Your task to perform on an android device: Clear all items from cart on walmart. Search for "razer huntsman" on walmart, select the first entry, and add it to the cart. Image 0: 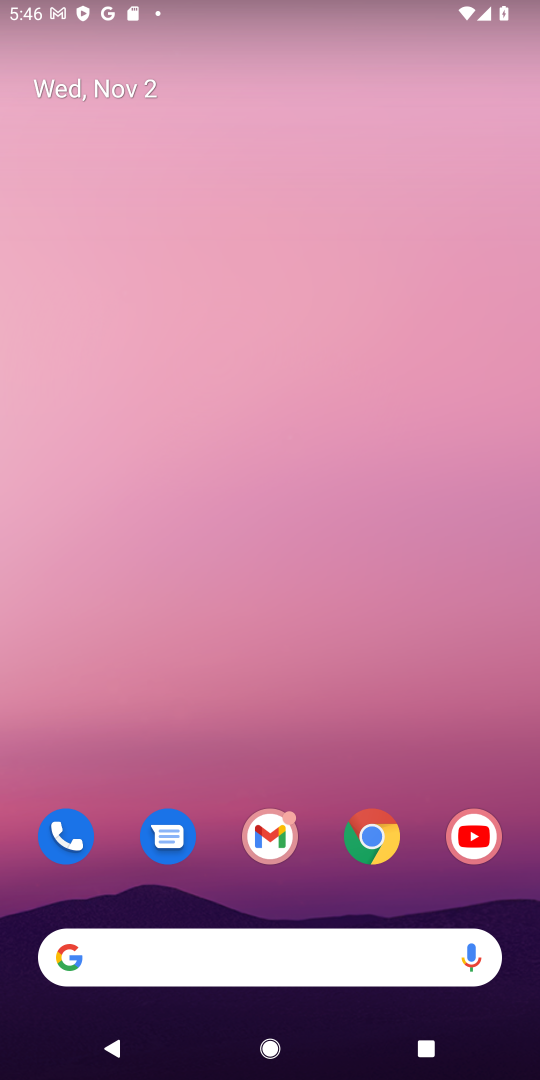
Step 0: drag from (200, 842) to (200, 308)
Your task to perform on an android device: Clear all items from cart on walmart. Search for "razer huntsman" on walmart, select the first entry, and add it to the cart. Image 1: 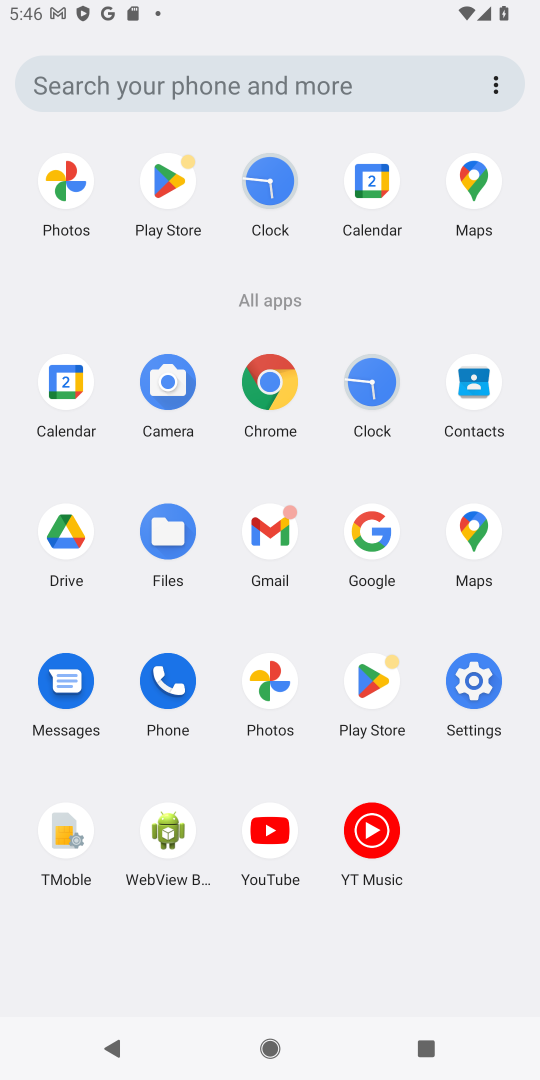
Step 1: click (364, 532)
Your task to perform on an android device: Clear all items from cart on walmart. Search for "razer huntsman" on walmart, select the first entry, and add it to the cart. Image 2: 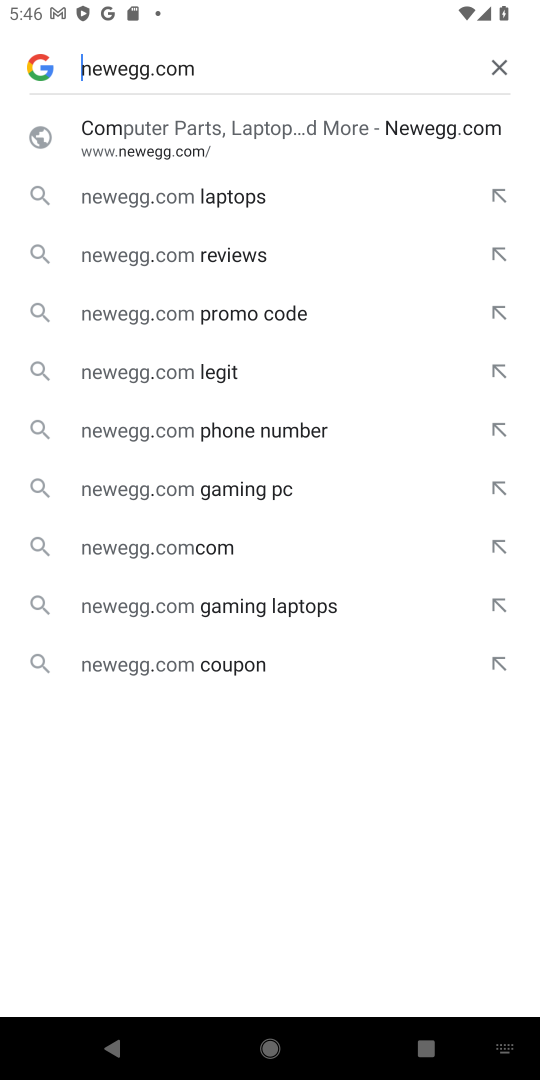
Step 2: click (172, 65)
Your task to perform on an android device: Clear all items from cart on walmart. Search for "razer huntsman" on walmart, select the first entry, and add it to the cart. Image 3: 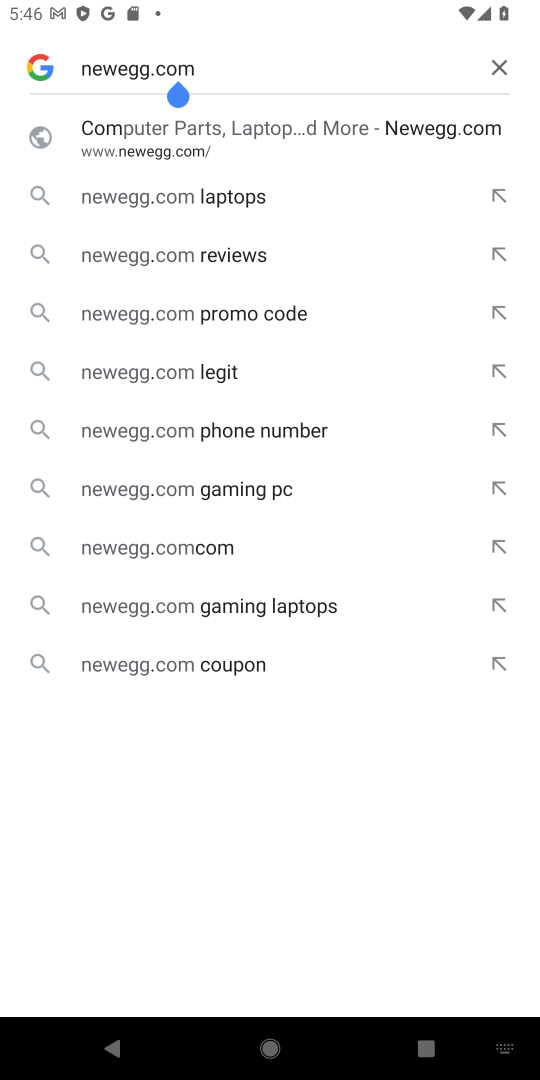
Step 3: click (496, 70)
Your task to perform on an android device: Clear all items from cart on walmart. Search for "razer huntsman" on walmart, select the first entry, and add it to the cart. Image 4: 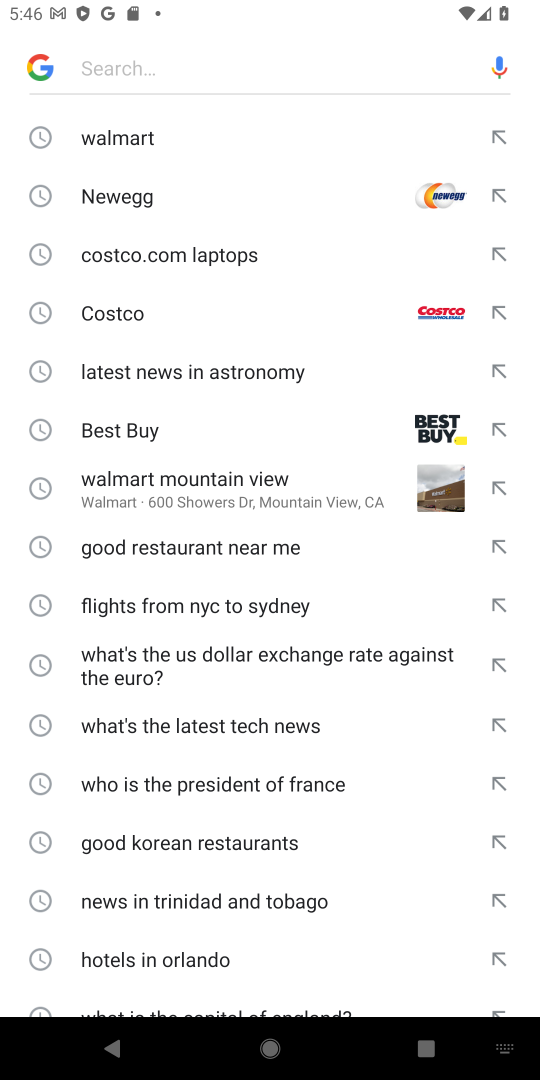
Step 4: type "walmart"
Your task to perform on an android device: Clear all items from cart on walmart. Search for "razer huntsman" on walmart, select the first entry, and add it to the cart. Image 5: 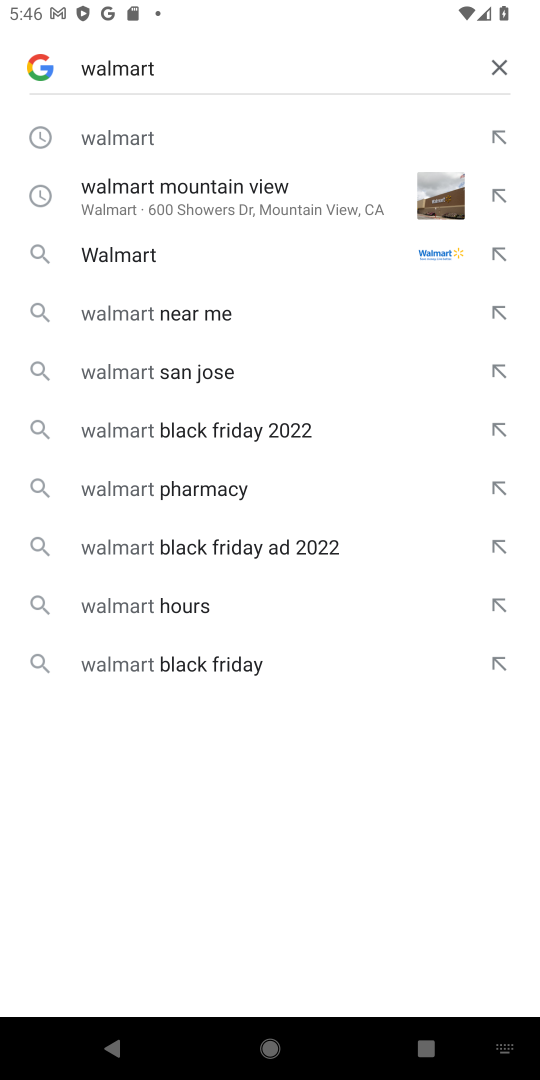
Step 5: click (131, 128)
Your task to perform on an android device: Clear all items from cart on walmart. Search for "razer huntsman" on walmart, select the first entry, and add it to the cart. Image 6: 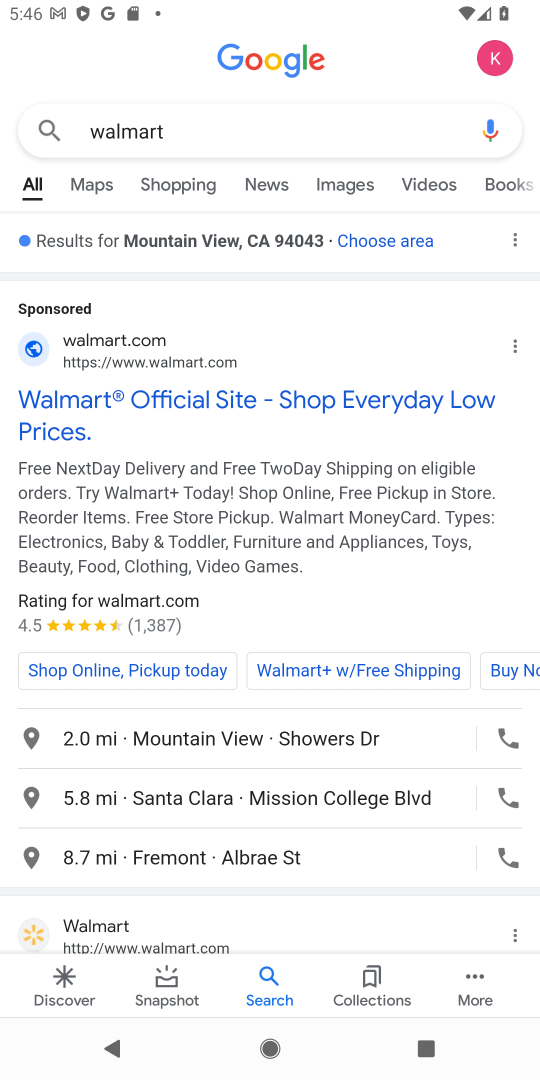
Step 6: click (84, 401)
Your task to perform on an android device: Clear all items from cart on walmart. Search for "razer huntsman" on walmart, select the first entry, and add it to the cart. Image 7: 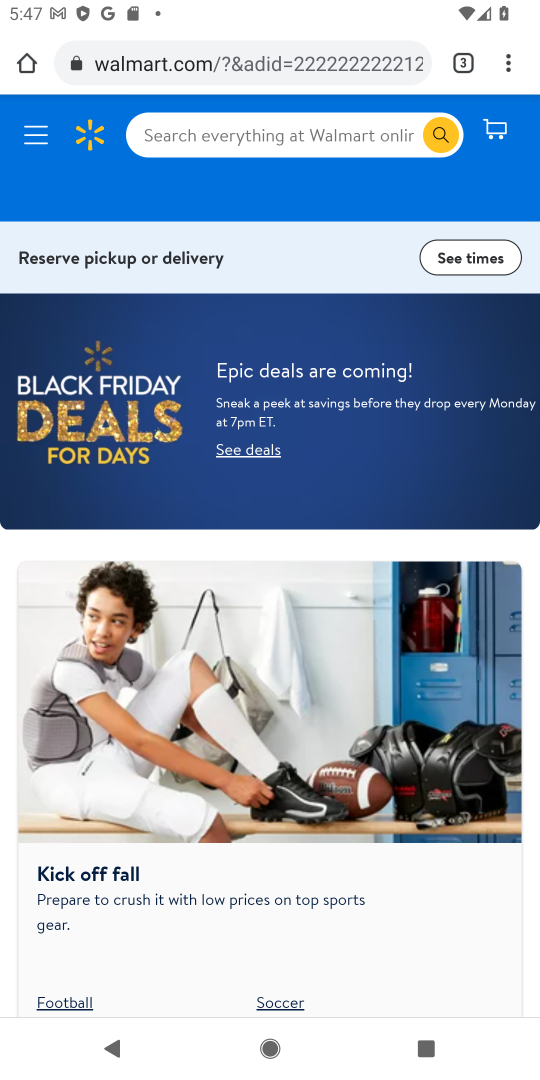
Step 7: click (208, 131)
Your task to perform on an android device: Clear all items from cart on walmart. Search for "razer huntsman" on walmart, select the first entry, and add it to the cart. Image 8: 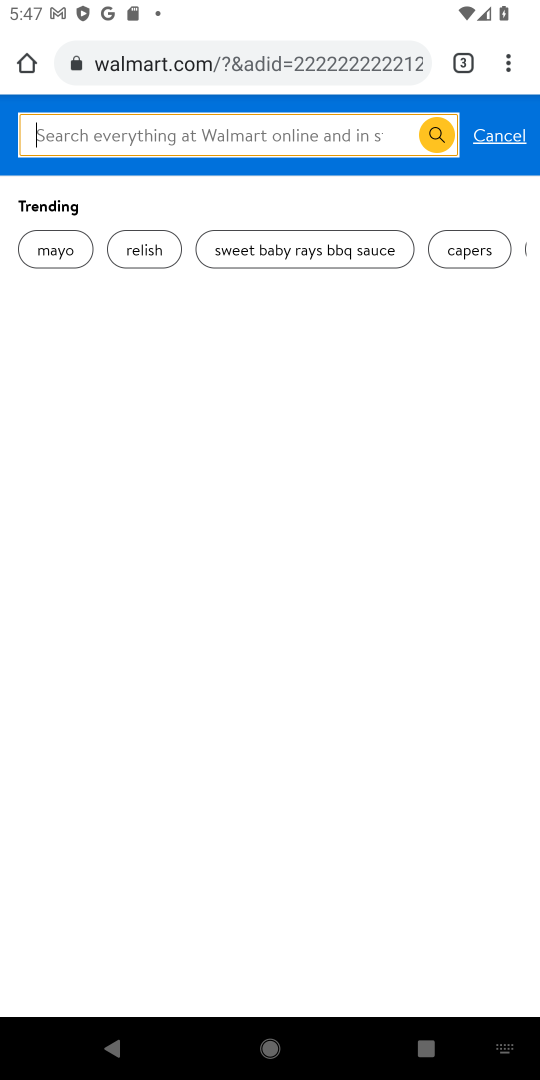
Step 8: type "razer huntsman"
Your task to perform on an android device: Clear all items from cart on walmart. Search for "razer huntsman" on walmart, select the first entry, and add it to the cart. Image 9: 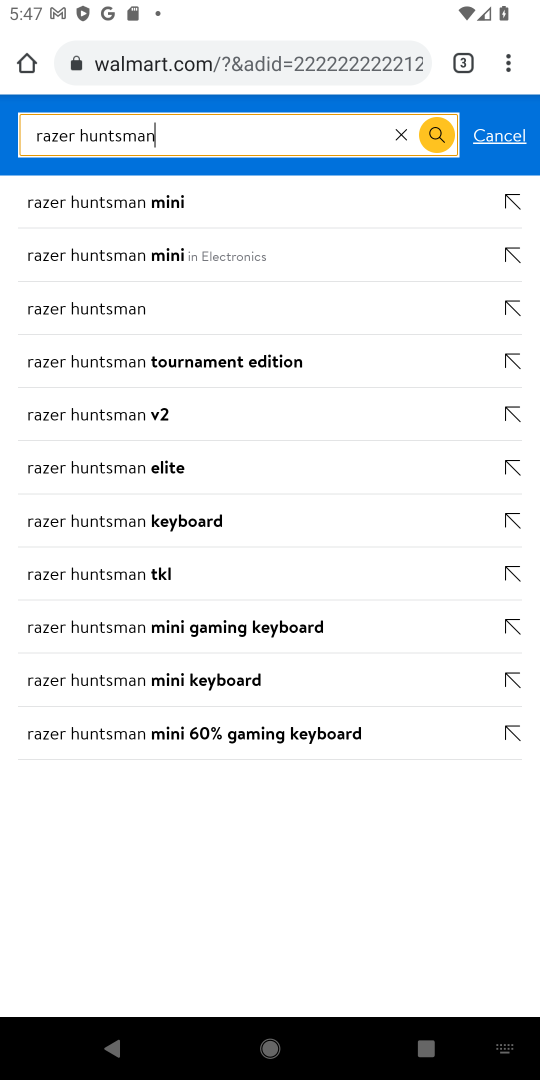
Step 9: click (96, 202)
Your task to perform on an android device: Clear all items from cart on walmart. Search for "razer huntsman" on walmart, select the first entry, and add it to the cart. Image 10: 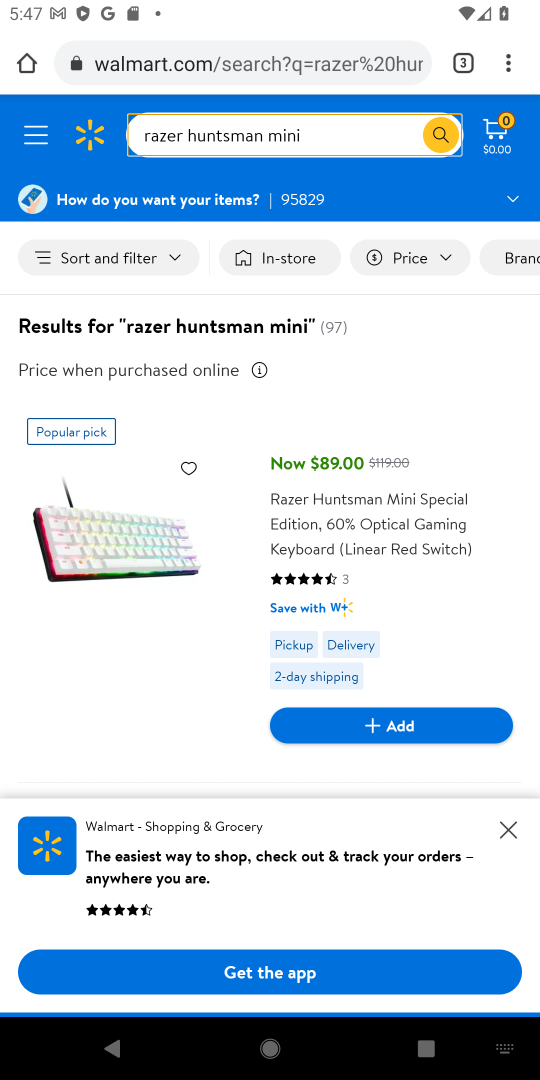
Step 10: click (403, 729)
Your task to perform on an android device: Clear all items from cart on walmart. Search for "razer huntsman" on walmart, select the first entry, and add it to the cart. Image 11: 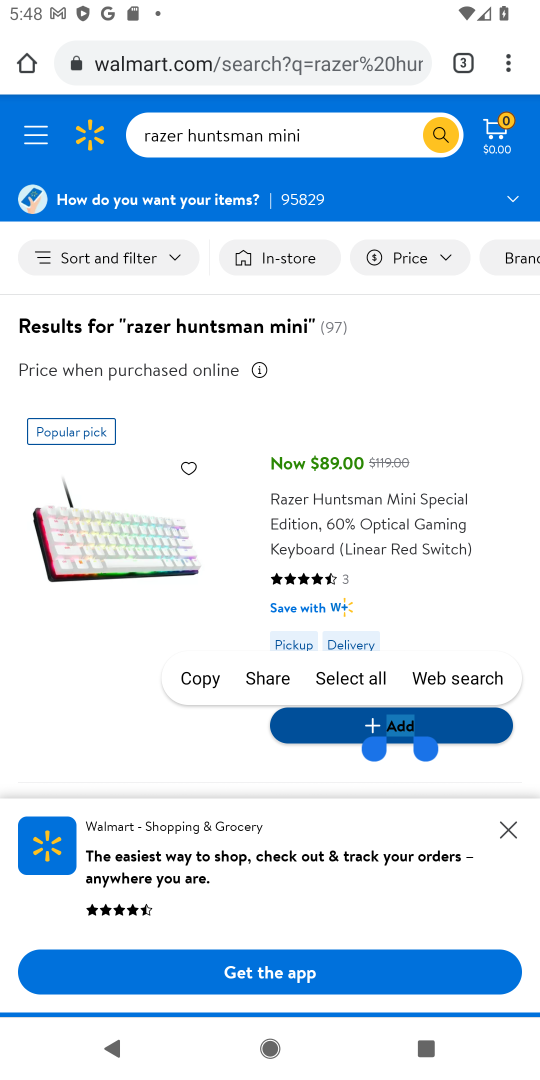
Step 11: click (292, 722)
Your task to perform on an android device: Clear all items from cart on walmart. Search for "razer huntsman" on walmart, select the first entry, and add it to the cart. Image 12: 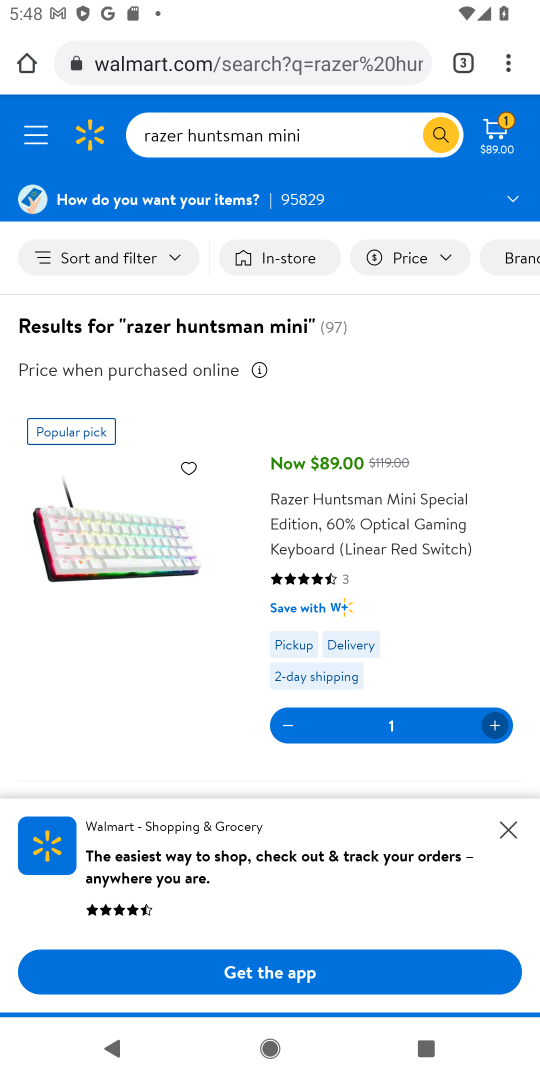
Step 12: task complete